Your task to perform on an android device: Go to Android settings Image 0: 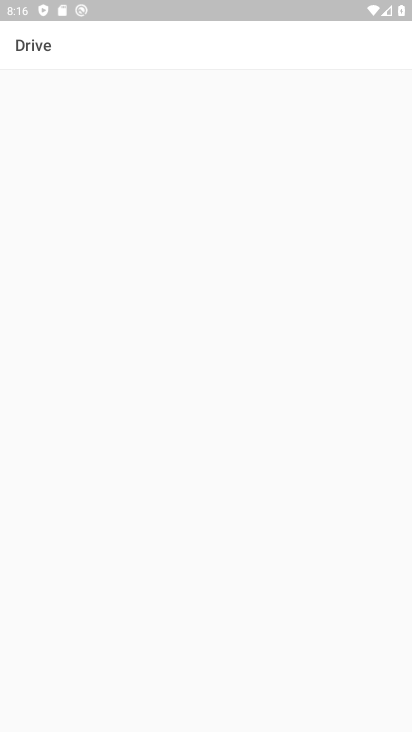
Step 0: press home button
Your task to perform on an android device: Go to Android settings Image 1: 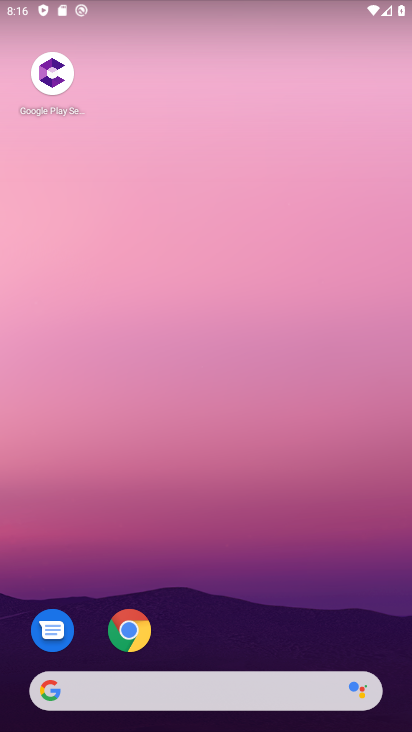
Step 1: drag from (221, 688) to (185, 49)
Your task to perform on an android device: Go to Android settings Image 2: 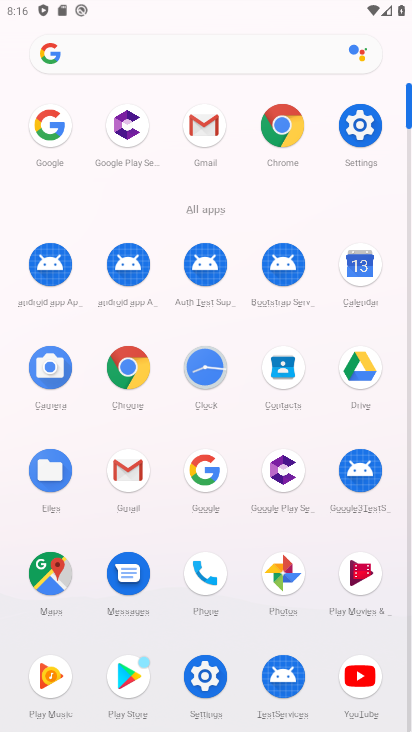
Step 2: click (364, 127)
Your task to perform on an android device: Go to Android settings Image 3: 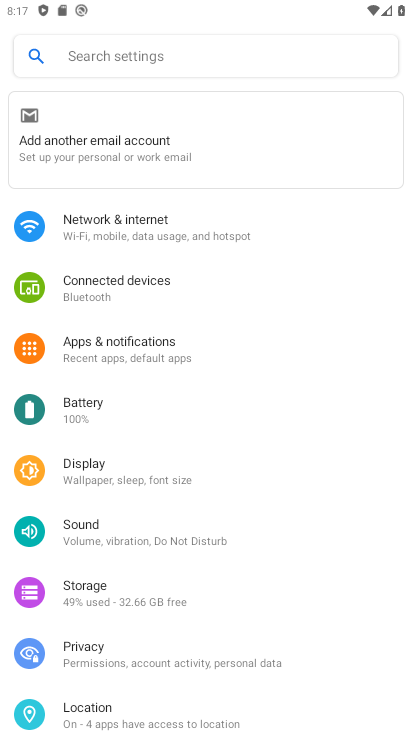
Step 3: task complete